Your task to perform on an android device: Open privacy settings Image 0: 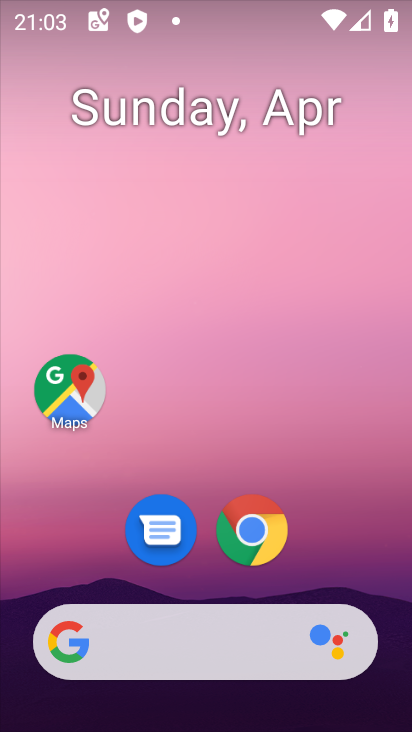
Step 0: drag from (217, 485) to (230, 210)
Your task to perform on an android device: Open privacy settings Image 1: 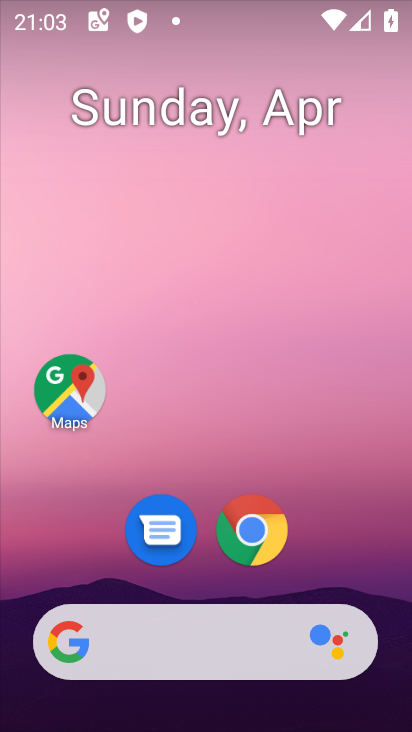
Step 1: drag from (191, 439) to (207, 209)
Your task to perform on an android device: Open privacy settings Image 2: 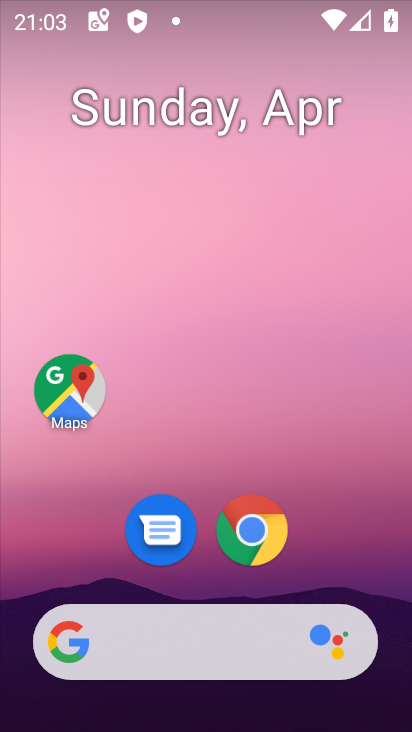
Step 2: drag from (217, 455) to (258, 12)
Your task to perform on an android device: Open privacy settings Image 3: 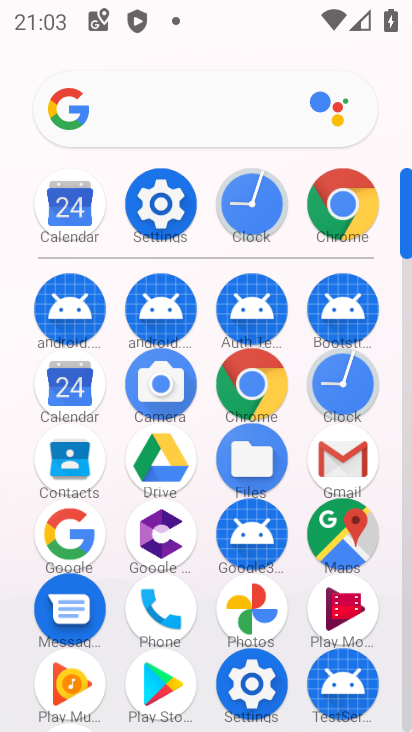
Step 3: click (167, 209)
Your task to perform on an android device: Open privacy settings Image 4: 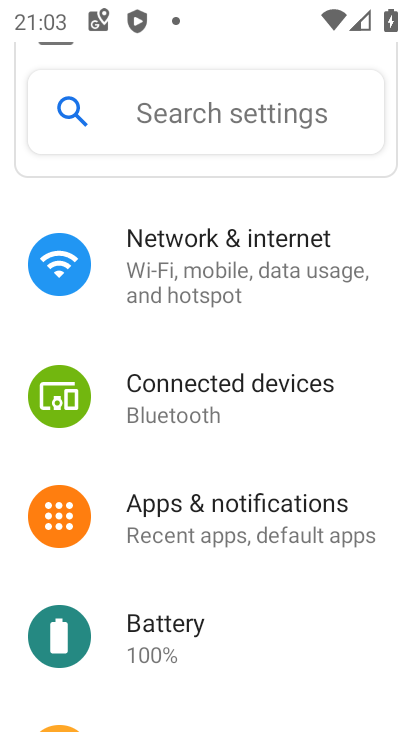
Step 4: drag from (195, 662) to (349, 228)
Your task to perform on an android device: Open privacy settings Image 5: 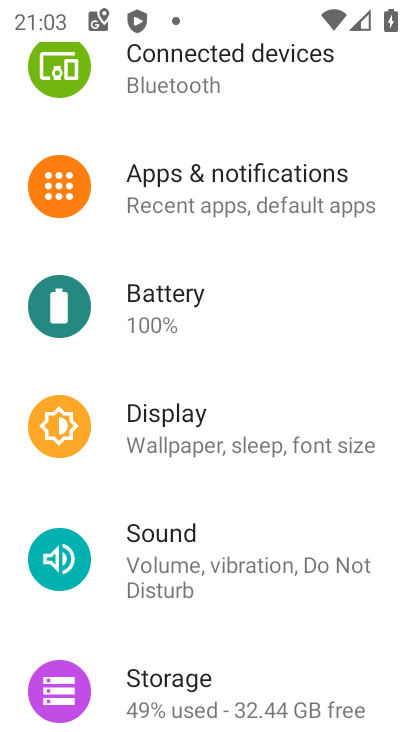
Step 5: drag from (192, 625) to (225, 232)
Your task to perform on an android device: Open privacy settings Image 6: 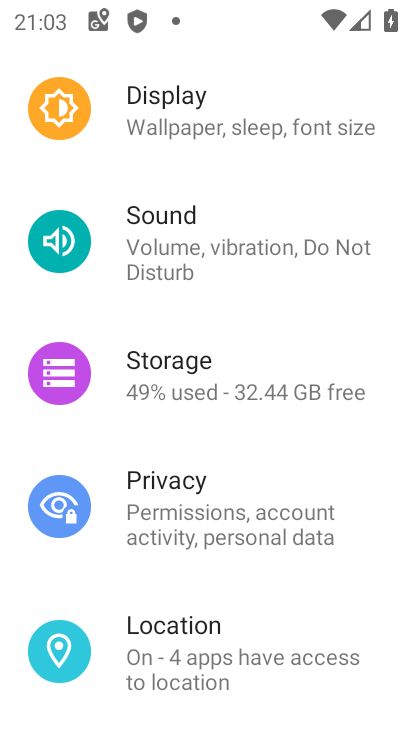
Step 6: click (183, 511)
Your task to perform on an android device: Open privacy settings Image 7: 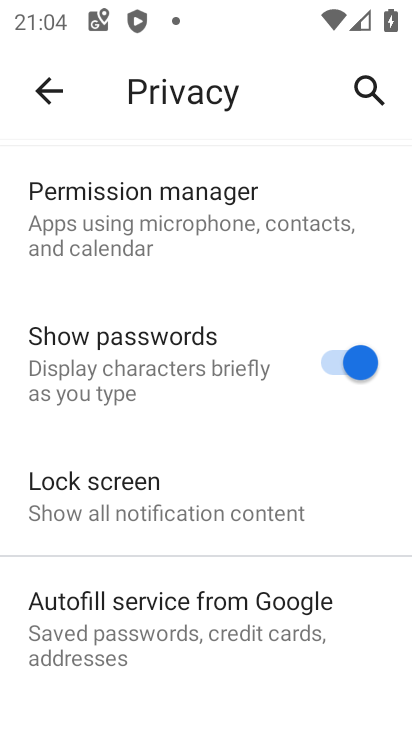
Step 7: task complete